Your task to perform on an android device: turn notification dots off Image 0: 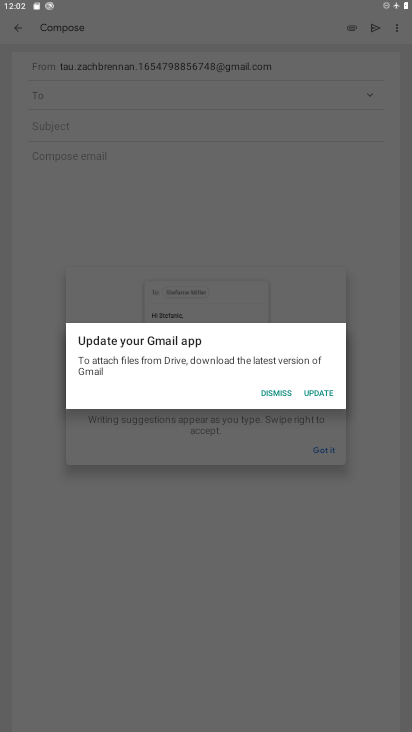
Step 0: click (274, 385)
Your task to perform on an android device: turn notification dots off Image 1: 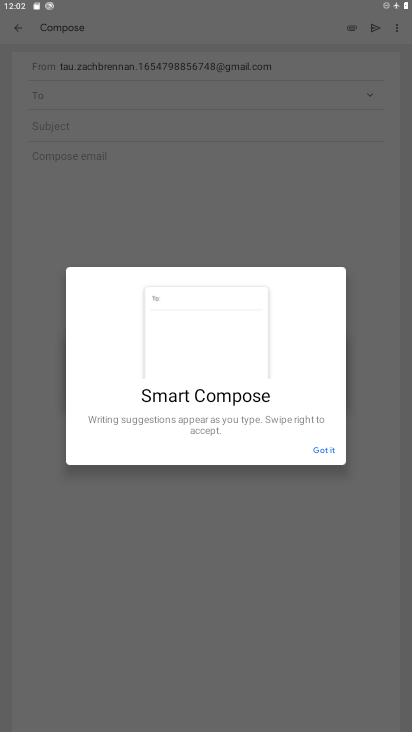
Step 1: click (327, 452)
Your task to perform on an android device: turn notification dots off Image 2: 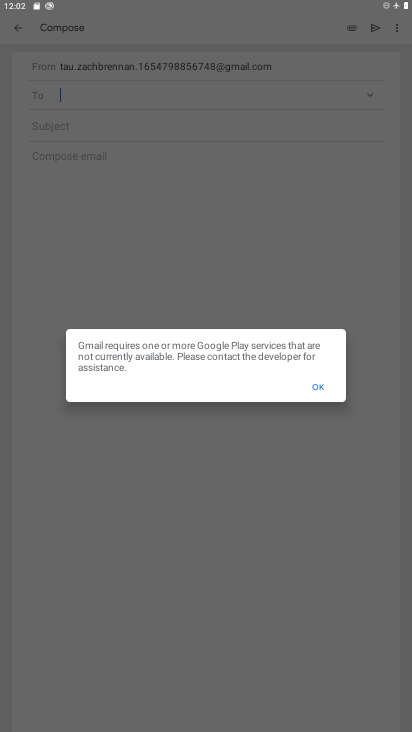
Step 2: click (319, 375)
Your task to perform on an android device: turn notification dots off Image 3: 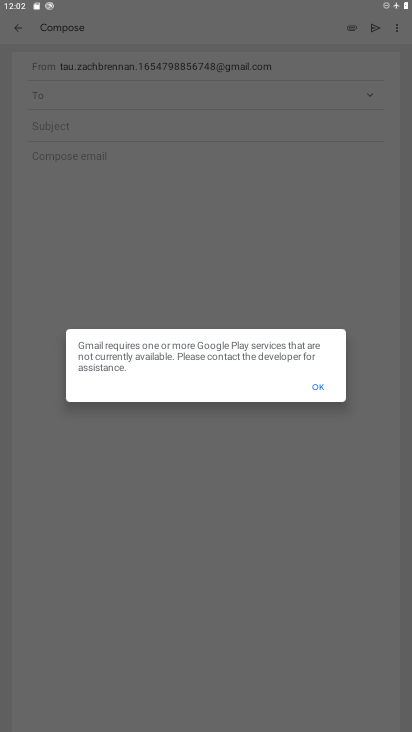
Step 3: click (319, 384)
Your task to perform on an android device: turn notification dots off Image 4: 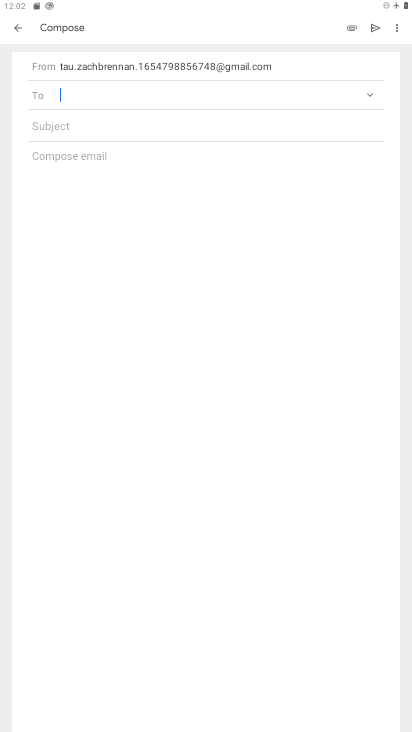
Step 4: press home button
Your task to perform on an android device: turn notification dots off Image 5: 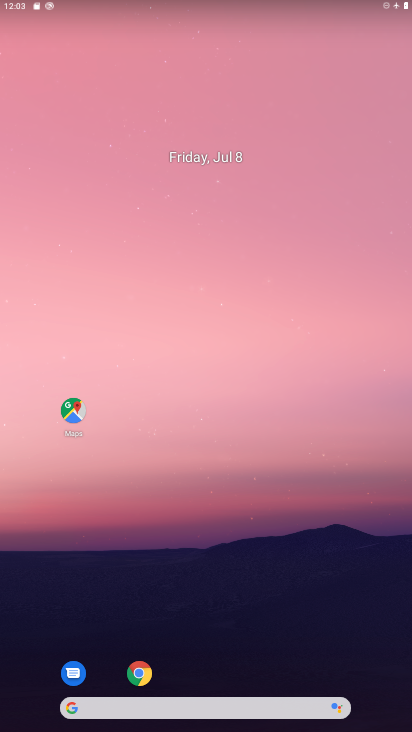
Step 5: click (230, 200)
Your task to perform on an android device: turn notification dots off Image 6: 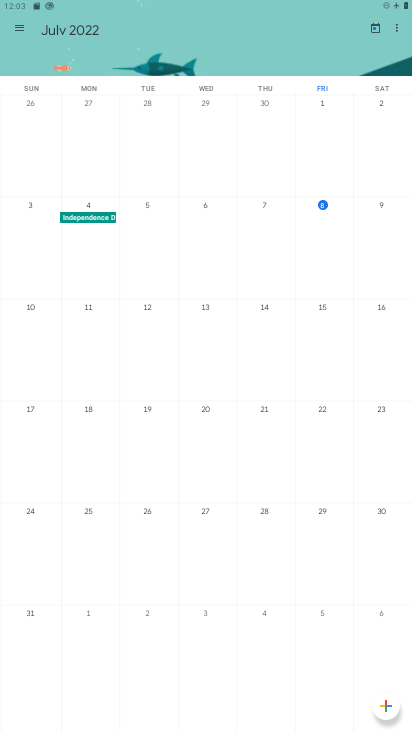
Step 6: press home button
Your task to perform on an android device: turn notification dots off Image 7: 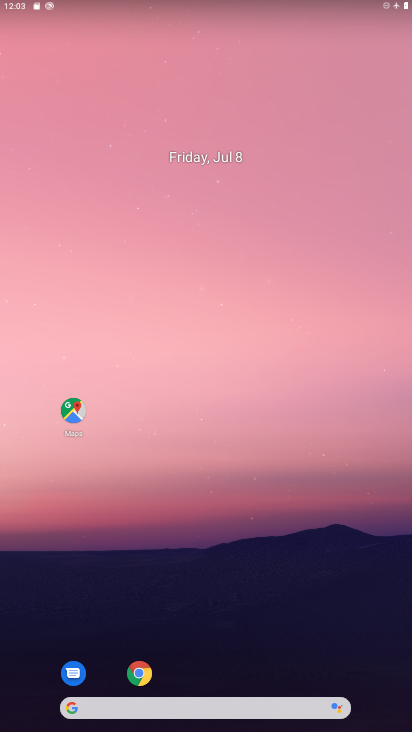
Step 7: drag from (264, 608) to (258, 337)
Your task to perform on an android device: turn notification dots off Image 8: 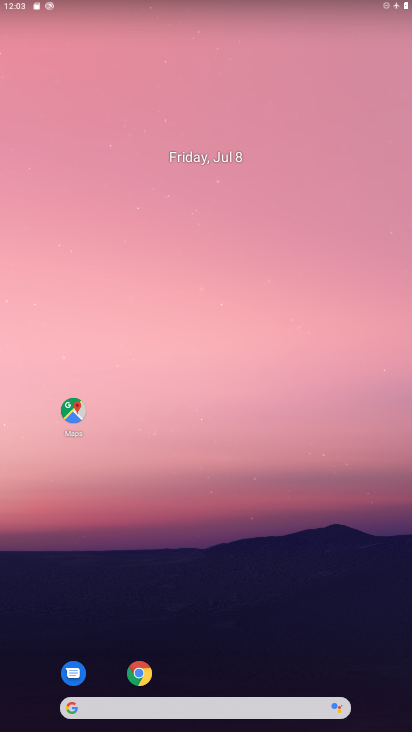
Step 8: drag from (217, 464) to (199, 16)
Your task to perform on an android device: turn notification dots off Image 9: 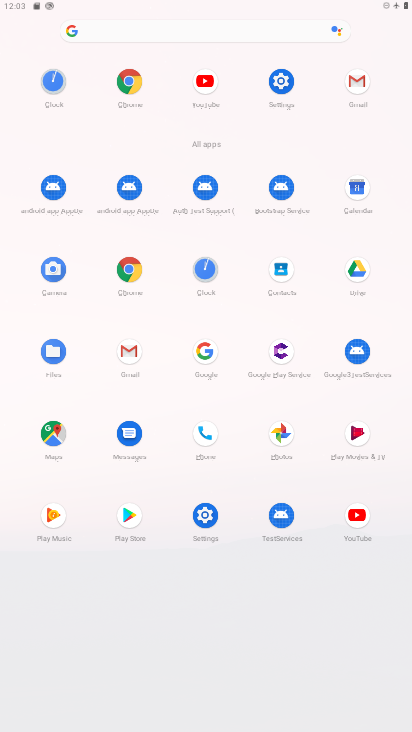
Step 9: click (280, 86)
Your task to perform on an android device: turn notification dots off Image 10: 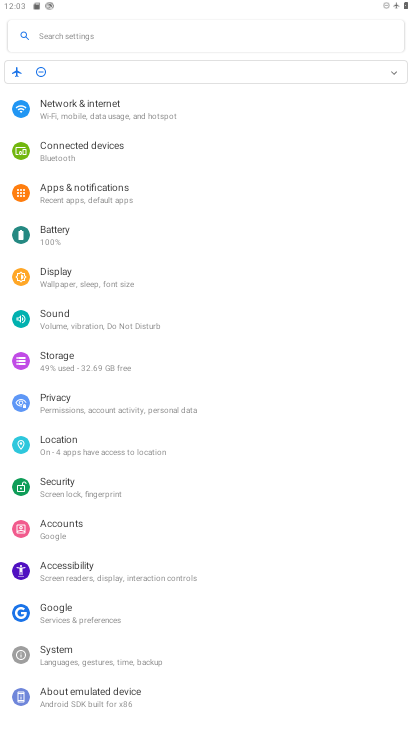
Step 10: click (152, 36)
Your task to perform on an android device: turn notification dots off Image 11: 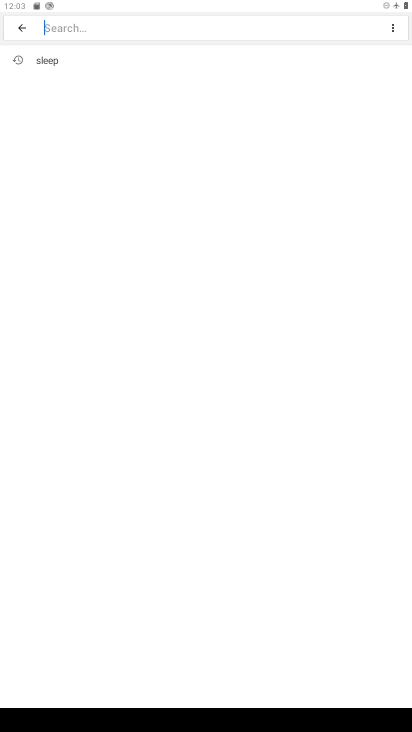
Step 11: type "dot"
Your task to perform on an android device: turn notification dots off Image 12: 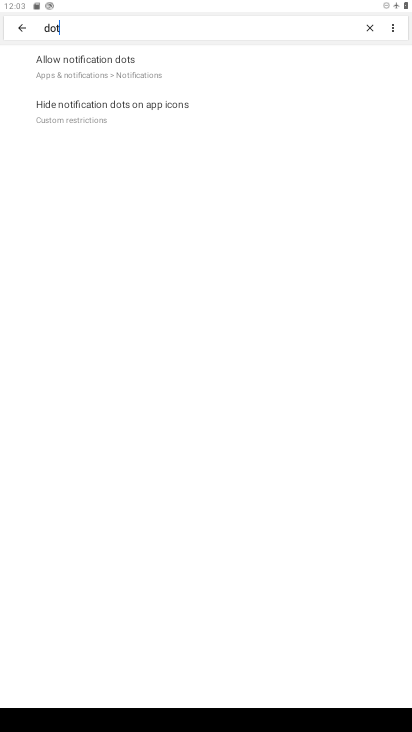
Step 12: press enter
Your task to perform on an android device: turn notification dots off Image 13: 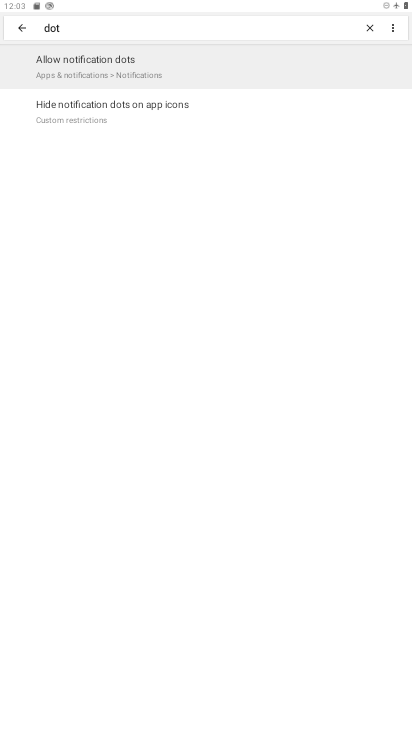
Step 13: click (100, 69)
Your task to perform on an android device: turn notification dots off Image 14: 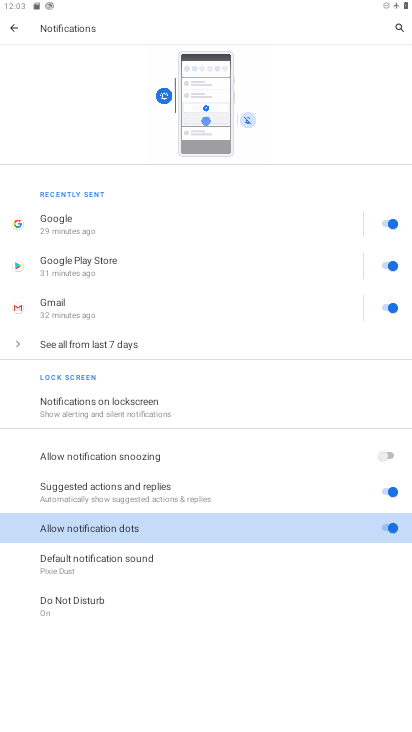
Step 14: click (391, 525)
Your task to perform on an android device: turn notification dots off Image 15: 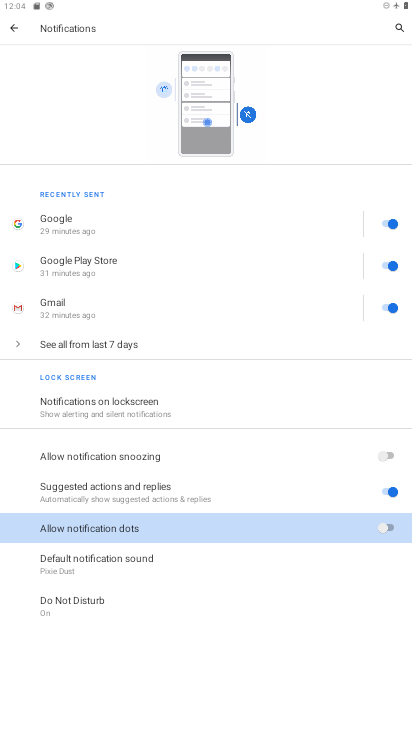
Step 15: task complete